Your task to perform on an android device: open app "Duolingo: language lessons" Image 0: 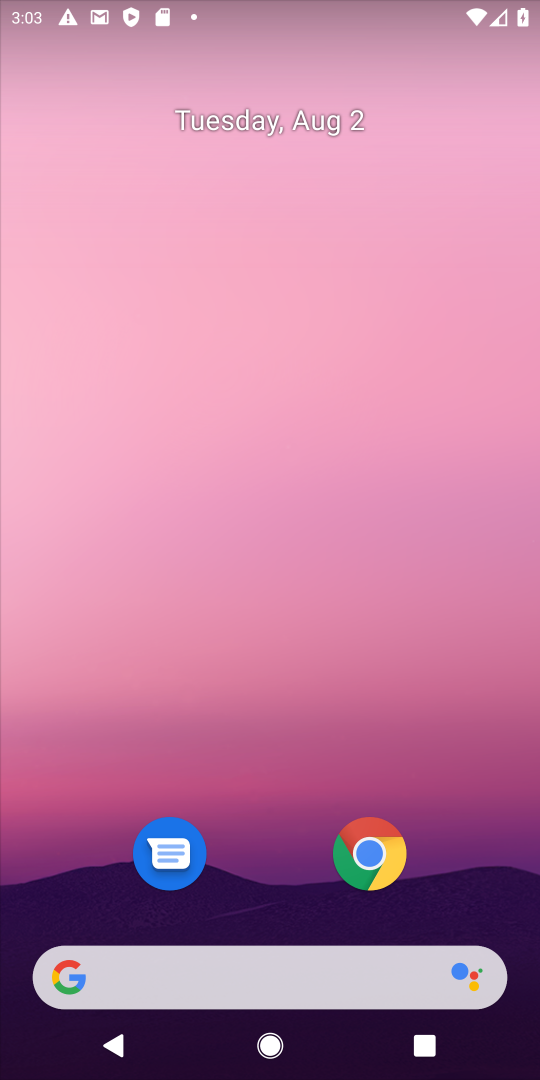
Step 0: click (301, 1050)
Your task to perform on an android device: open app "Duolingo: language lessons" Image 1: 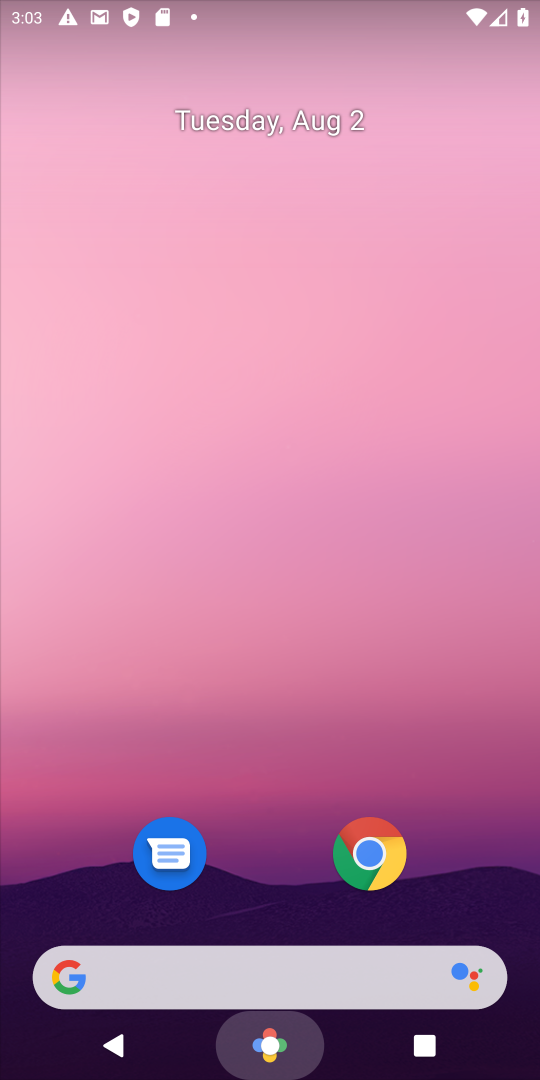
Step 1: drag from (312, 419) to (356, 45)
Your task to perform on an android device: open app "Duolingo: language lessons" Image 2: 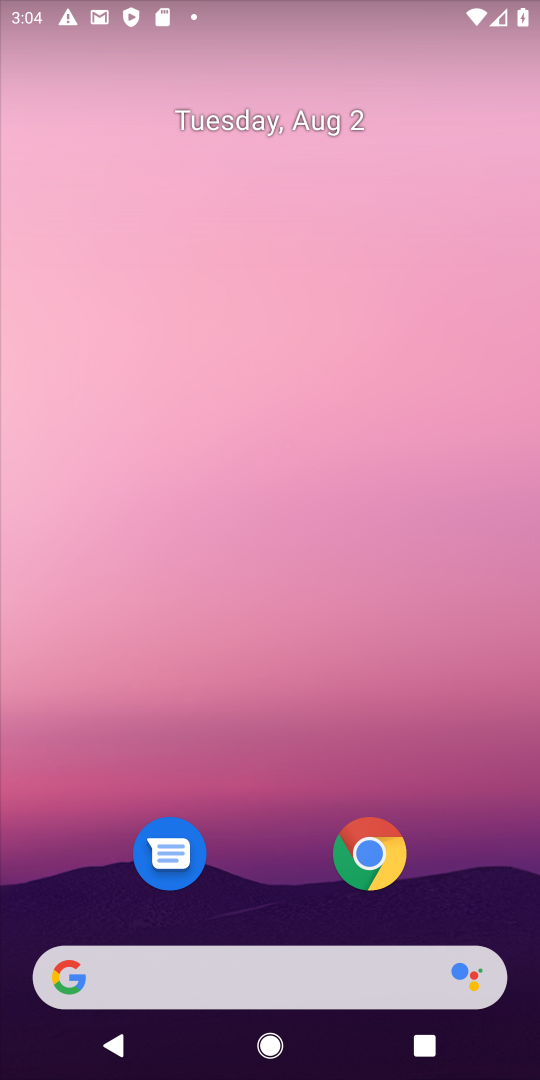
Step 2: click (326, 1070)
Your task to perform on an android device: open app "Duolingo: language lessons" Image 3: 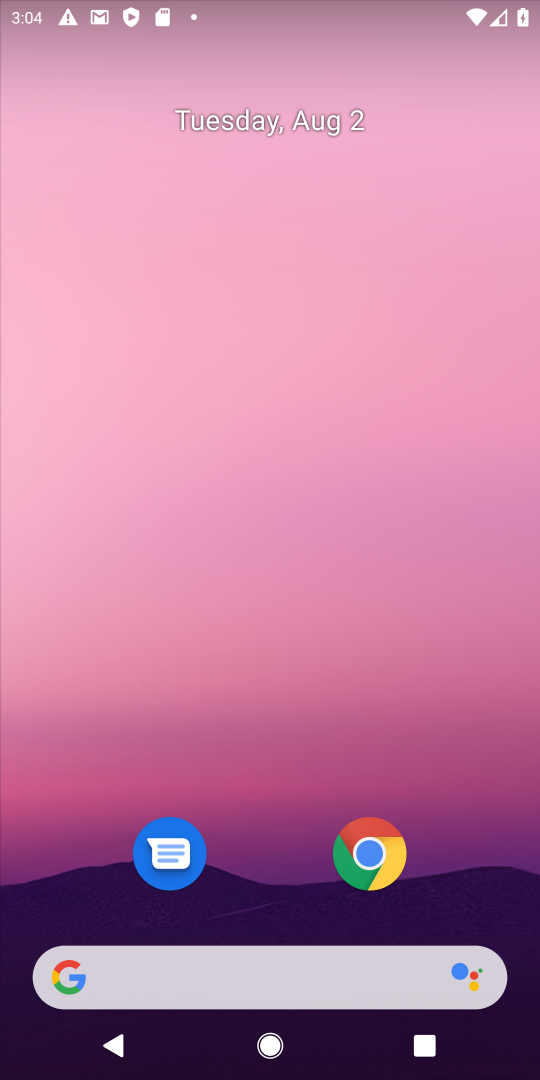
Step 3: drag from (327, 292) to (332, 78)
Your task to perform on an android device: open app "Duolingo: language lessons" Image 4: 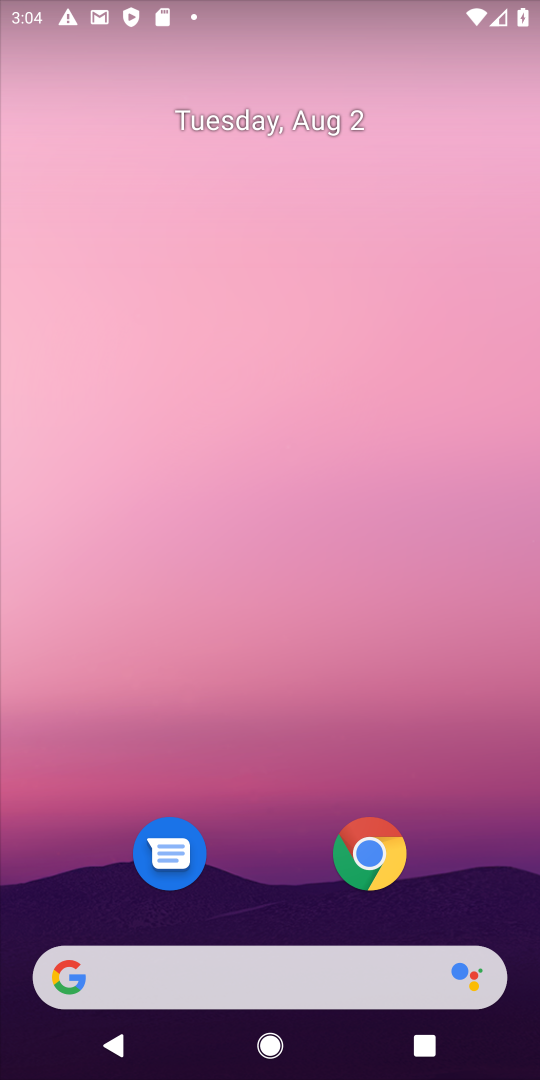
Step 4: drag from (294, 1066) to (320, 26)
Your task to perform on an android device: open app "Duolingo: language lessons" Image 5: 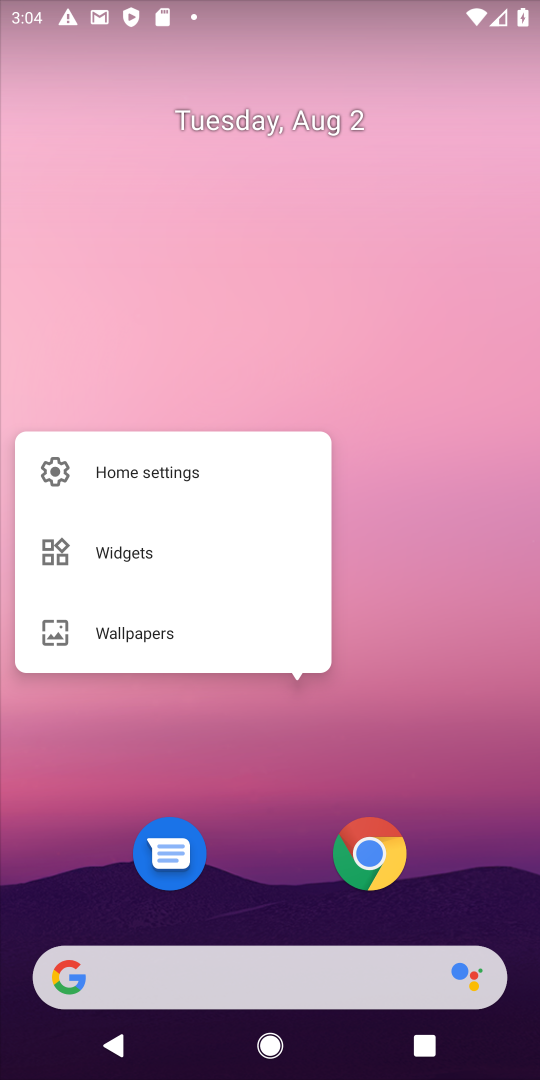
Step 5: click (468, 755)
Your task to perform on an android device: open app "Duolingo: language lessons" Image 6: 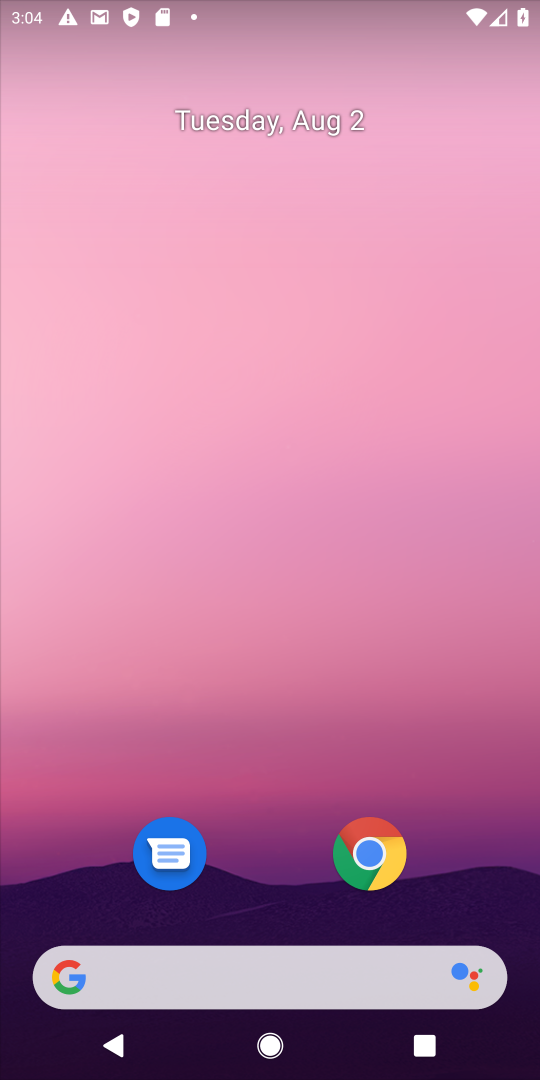
Step 6: drag from (291, 1006) to (296, 52)
Your task to perform on an android device: open app "Duolingo: language lessons" Image 7: 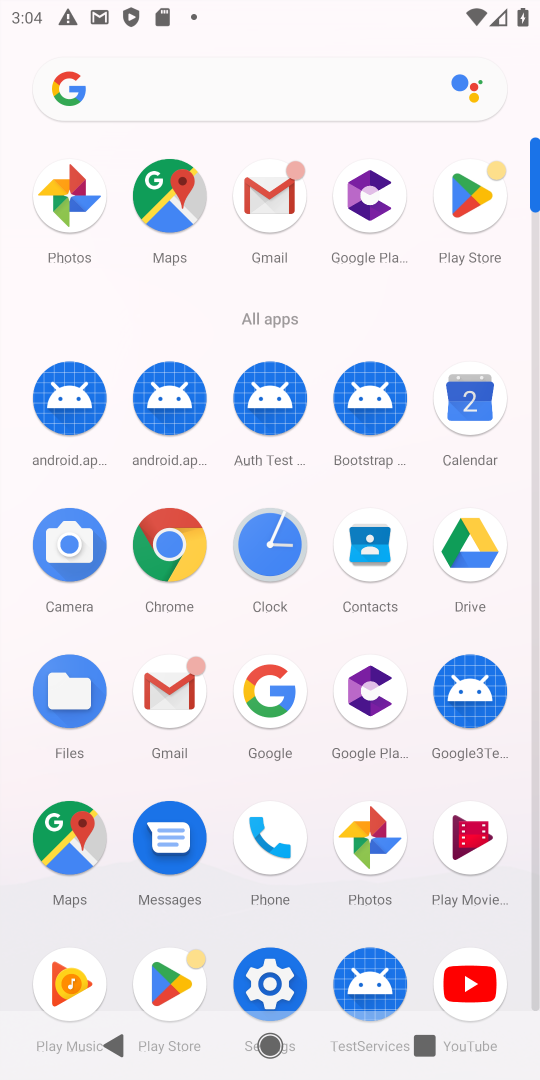
Step 7: click (469, 201)
Your task to perform on an android device: open app "Duolingo: language lessons" Image 8: 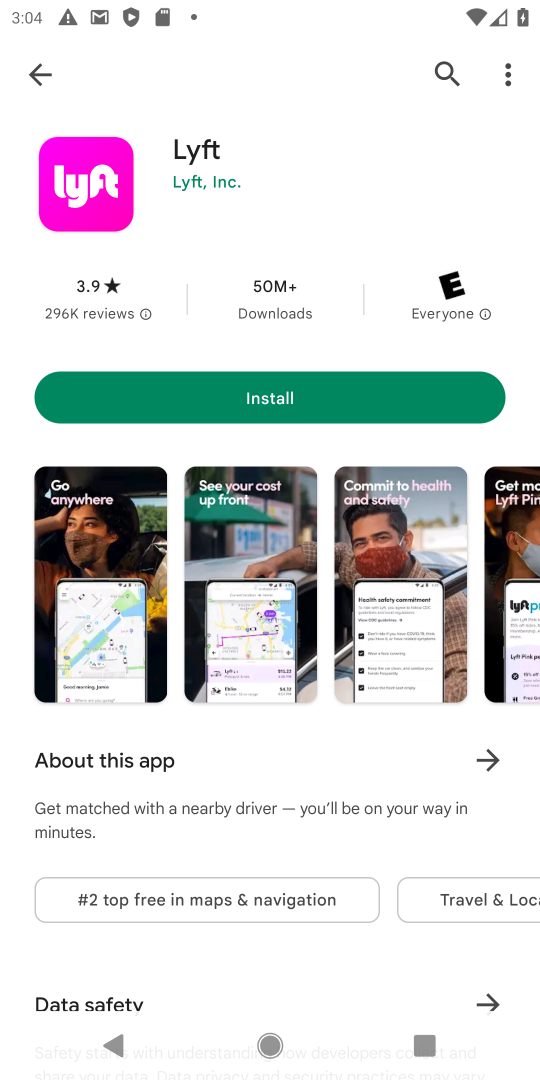
Step 8: click (448, 65)
Your task to perform on an android device: open app "Duolingo: language lessons" Image 9: 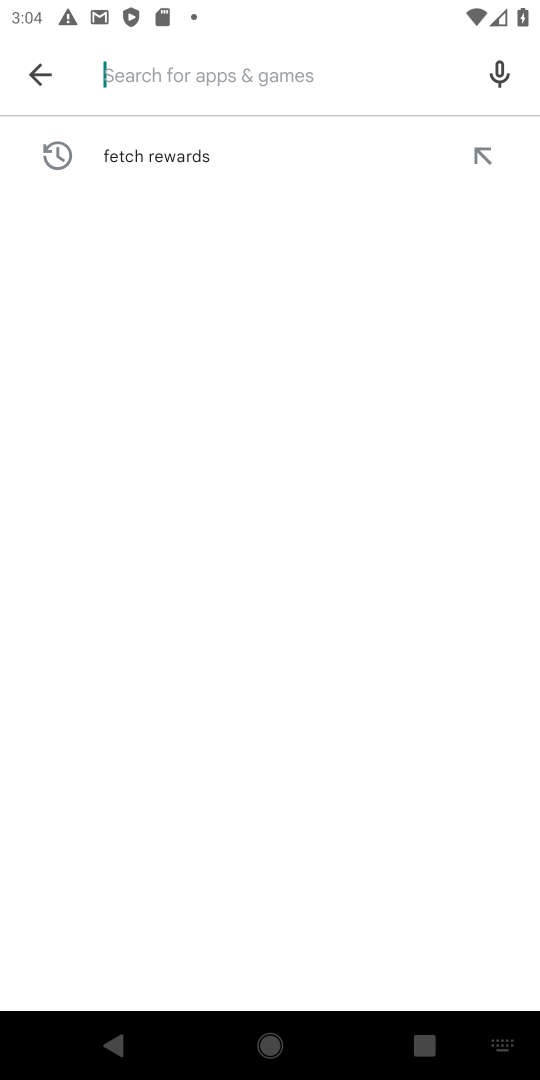
Step 9: type ""
Your task to perform on an android device: open app "Duolingo: language lessons" Image 10: 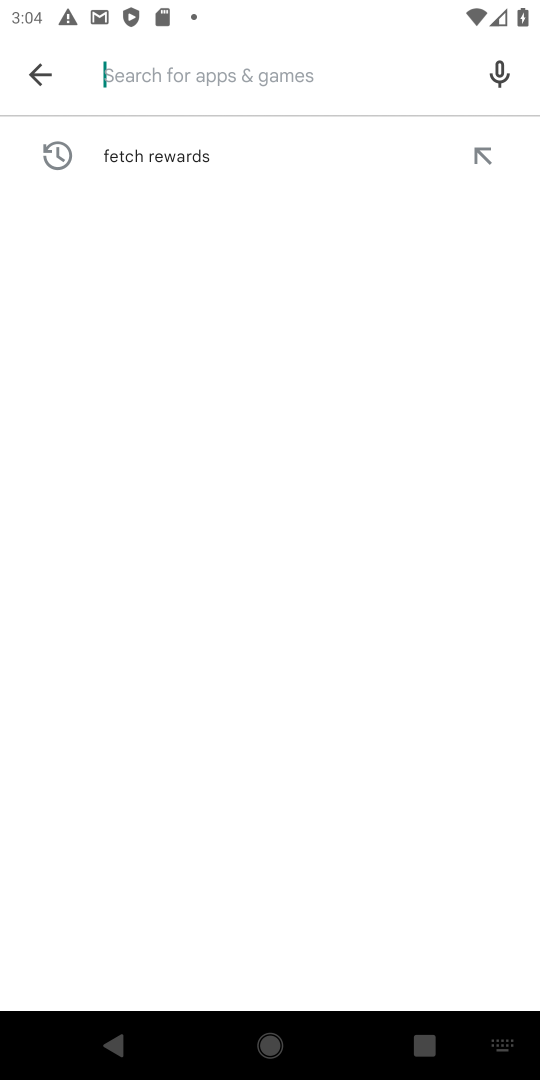
Step 10: type "Duolingo: language lessons"
Your task to perform on an android device: open app "Duolingo: language lessons" Image 11: 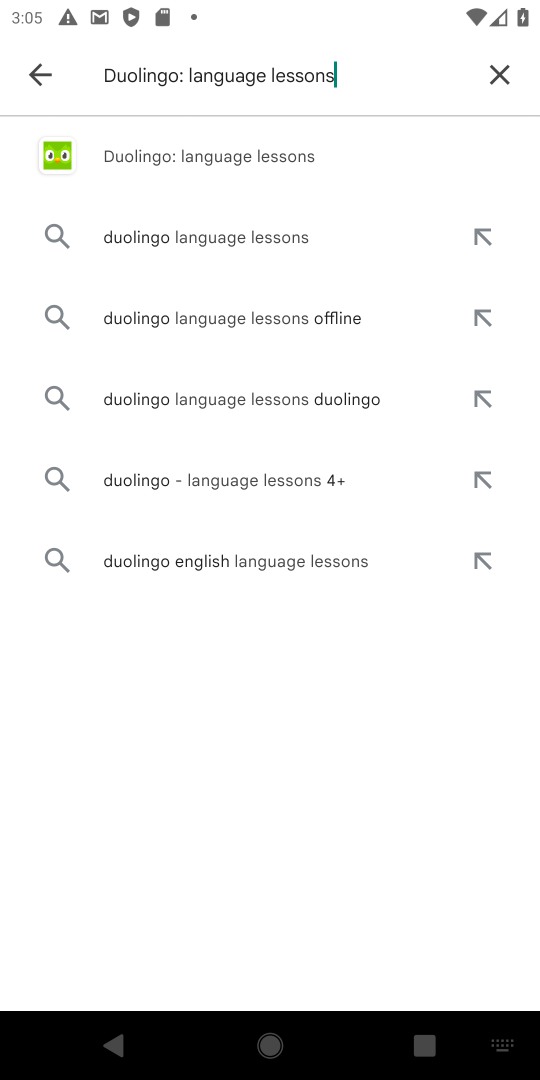
Step 11: click (241, 158)
Your task to perform on an android device: open app "Duolingo: language lessons" Image 12: 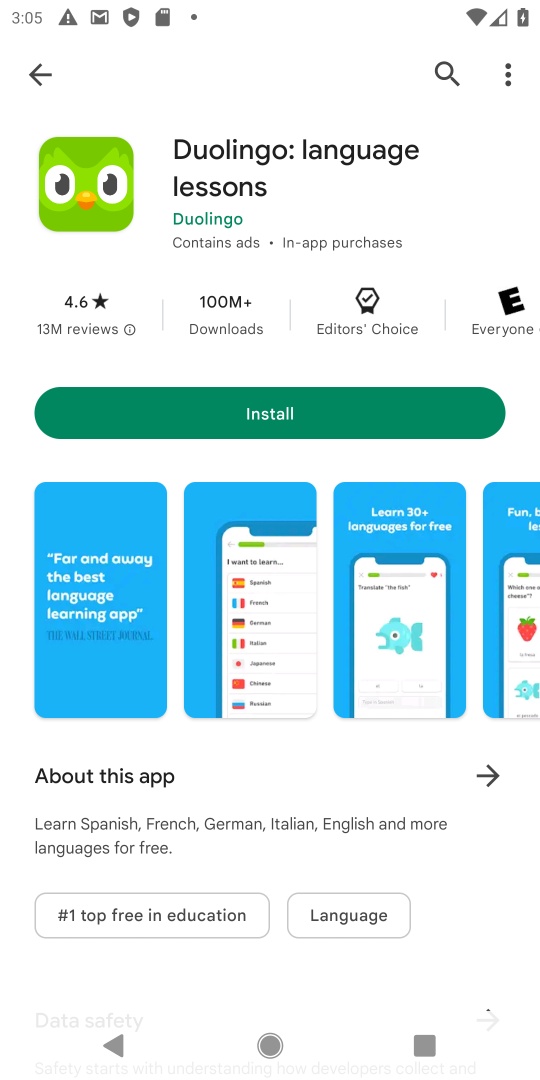
Step 12: task complete